Your task to perform on an android device: toggle priority inbox in the gmail app Image 0: 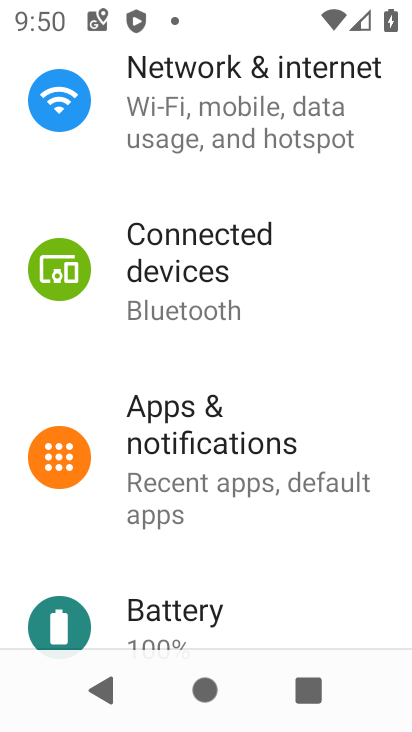
Step 0: press home button
Your task to perform on an android device: toggle priority inbox in the gmail app Image 1: 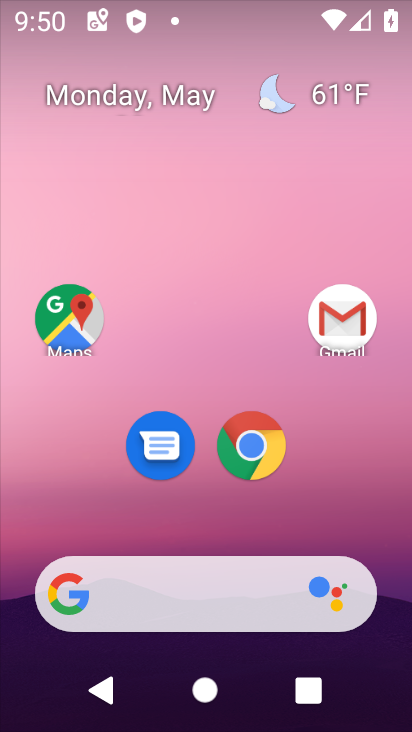
Step 1: drag from (378, 534) to (367, 153)
Your task to perform on an android device: toggle priority inbox in the gmail app Image 2: 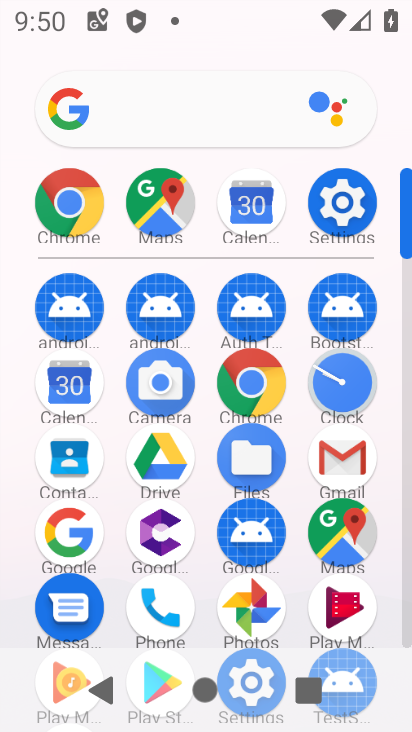
Step 2: click (335, 461)
Your task to perform on an android device: toggle priority inbox in the gmail app Image 3: 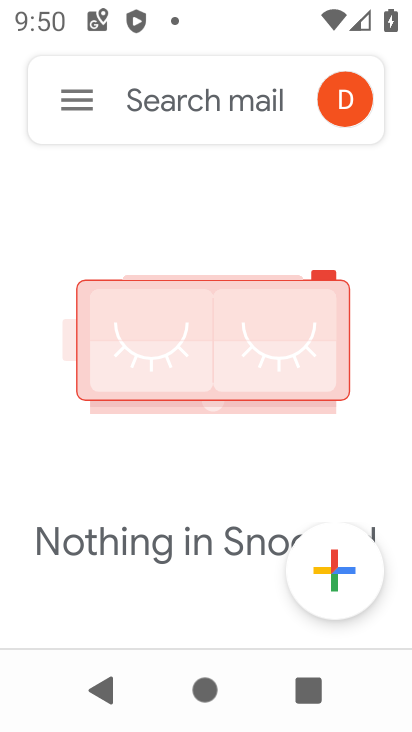
Step 3: click (82, 108)
Your task to perform on an android device: toggle priority inbox in the gmail app Image 4: 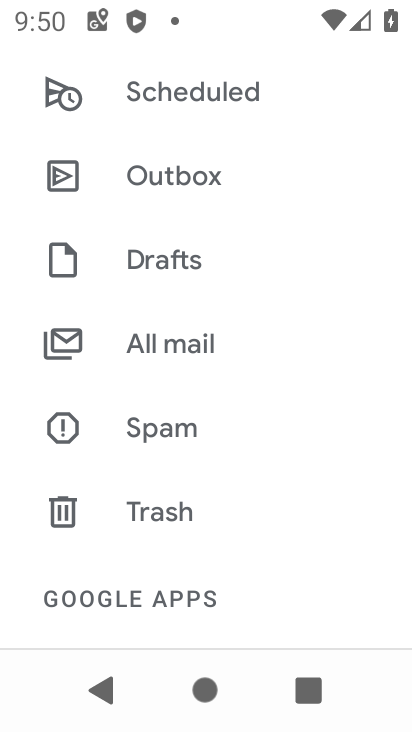
Step 4: drag from (302, 226) to (308, 425)
Your task to perform on an android device: toggle priority inbox in the gmail app Image 5: 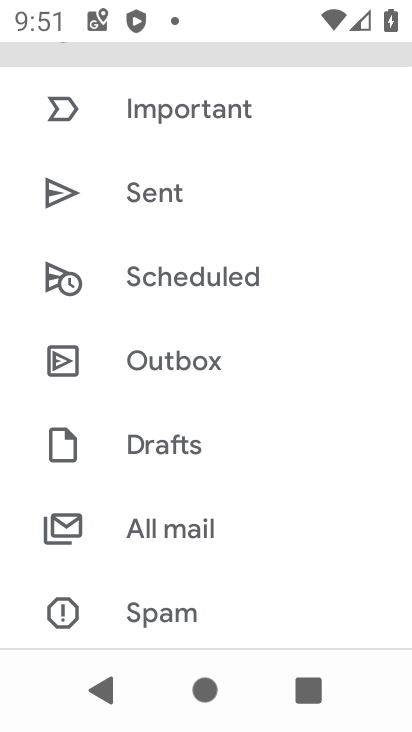
Step 5: drag from (308, 191) to (321, 350)
Your task to perform on an android device: toggle priority inbox in the gmail app Image 6: 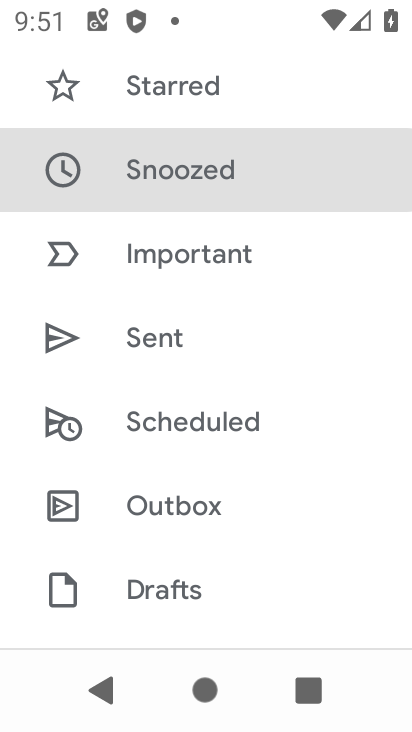
Step 6: drag from (297, 147) to (305, 297)
Your task to perform on an android device: toggle priority inbox in the gmail app Image 7: 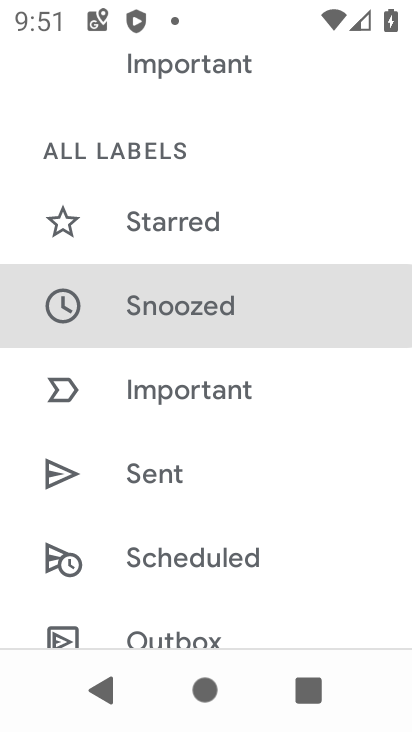
Step 7: drag from (300, 145) to (308, 285)
Your task to perform on an android device: toggle priority inbox in the gmail app Image 8: 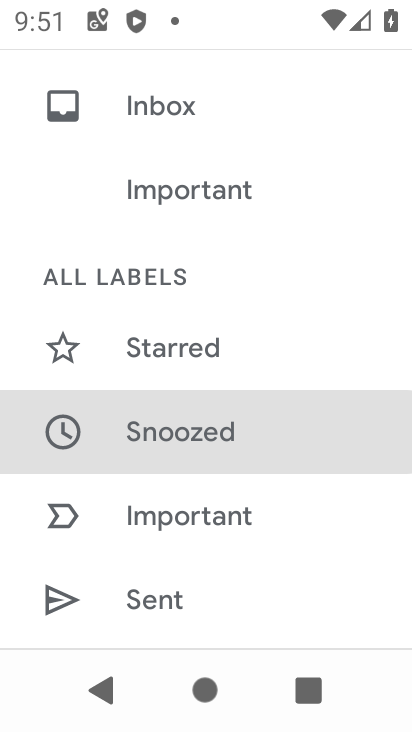
Step 8: drag from (296, 136) to (302, 295)
Your task to perform on an android device: toggle priority inbox in the gmail app Image 9: 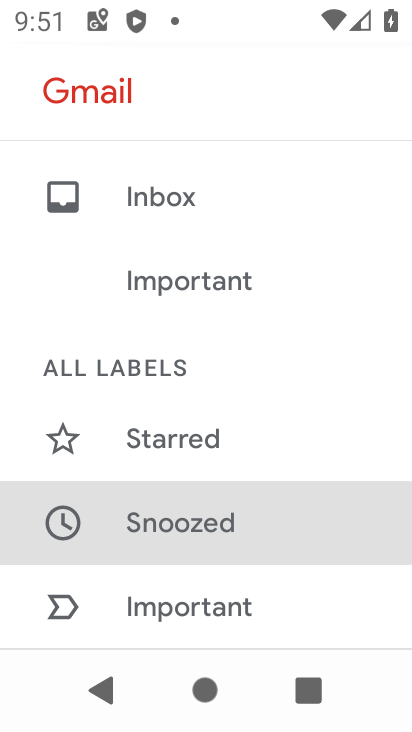
Step 9: drag from (309, 374) to (305, 184)
Your task to perform on an android device: toggle priority inbox in the gmail app Image 10: 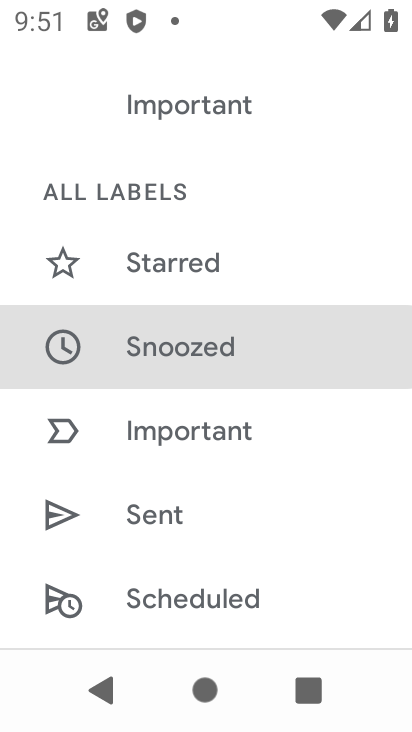
Step 10: drag from (300, 341) to (295, 148)
Your task to perform on an android device: toggle priority inbox in the gmail app Image 11: 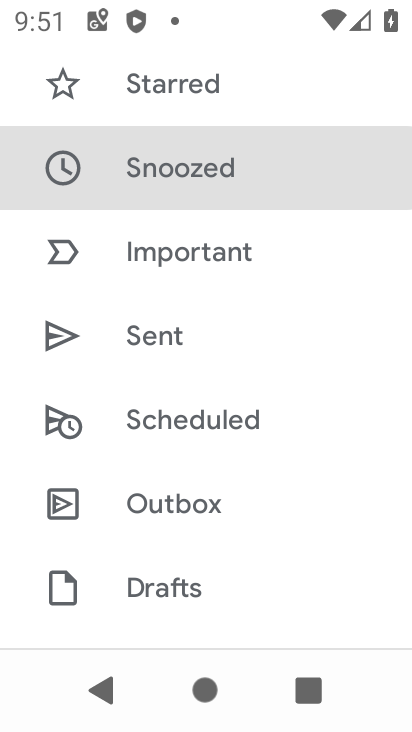
Step 11: drag from (308, 417) to (302, 258)
Your task to perform on an android device: toggle priority inbox in the gmail app Image 12: 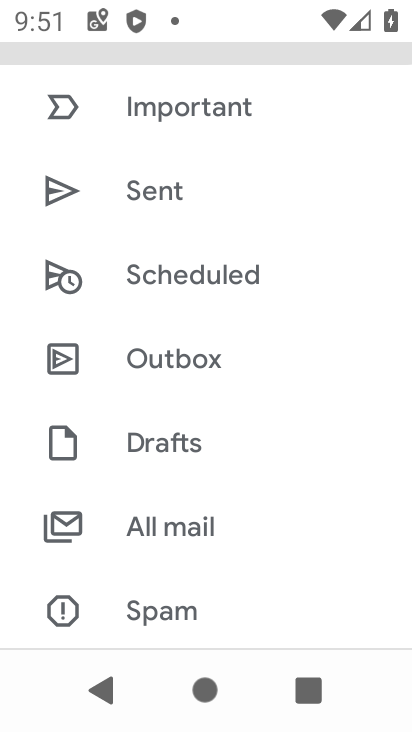
Step 12: drag from (292, 432) to (281, 245)
Your task to perform on an android device: toggle priority inbox in the gmail app Image 13: 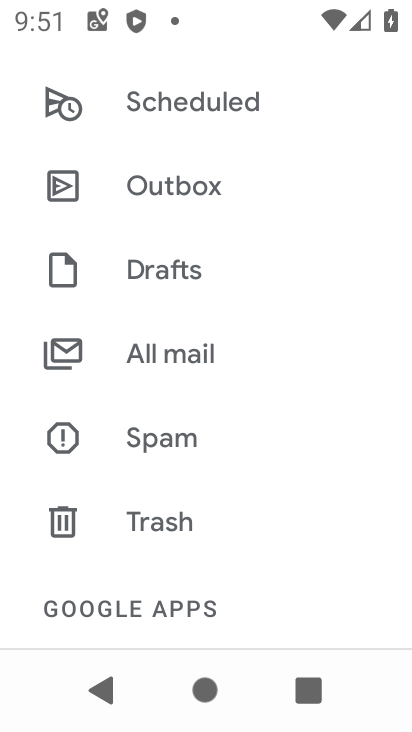
Step 13: drag from (292, 509) to (274, 315)
Your task to perform on an android device: toggle priority inbox in the gmail app Image 14: 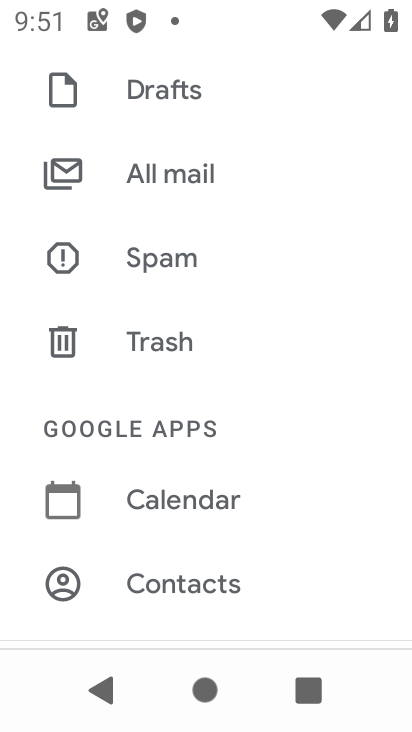
Step 14: drag from (294, 571) to (291, 392)
Your task to perform on an android device: toggle priority inbox in the gmail app Image 15: 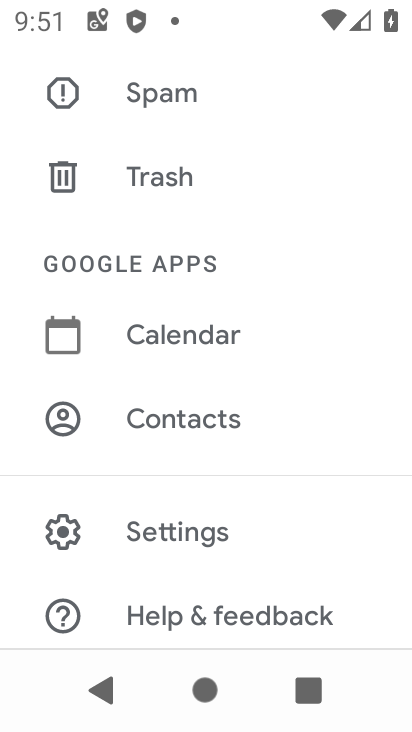
Step 15: drag from (282, 550) to (282, 418)
Your task to perform on an android device: toggle priority inbox in the gmail app Image 16: 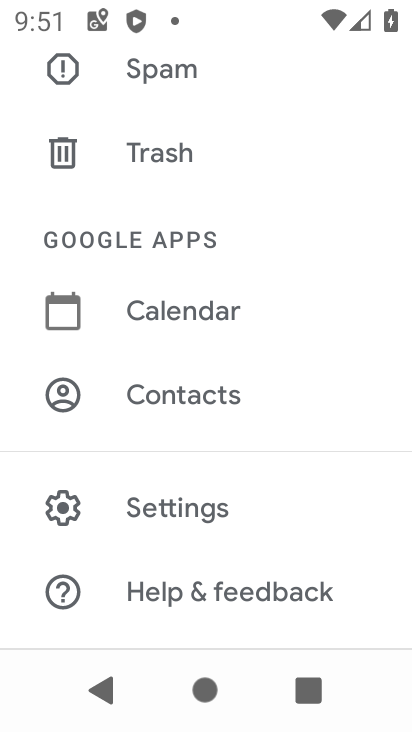
Step 16: click (229, 509)
Your task to perform on an android device: toggle priority inbox in the gmail app Image 17: 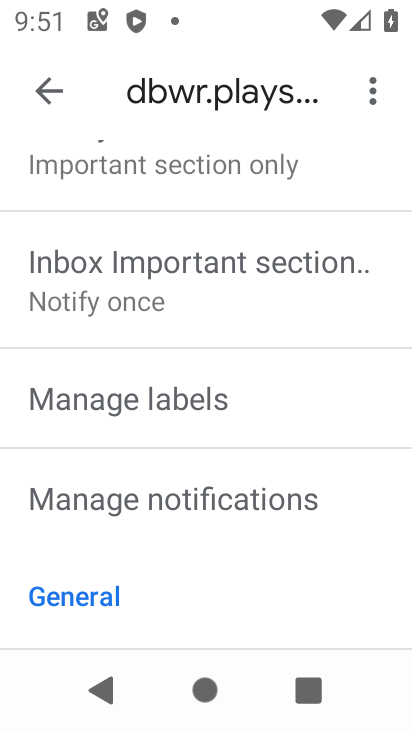
Step 17: task complete